Your task to perform on an android device: Open the phone app and click the voicemail tab. Image 0: 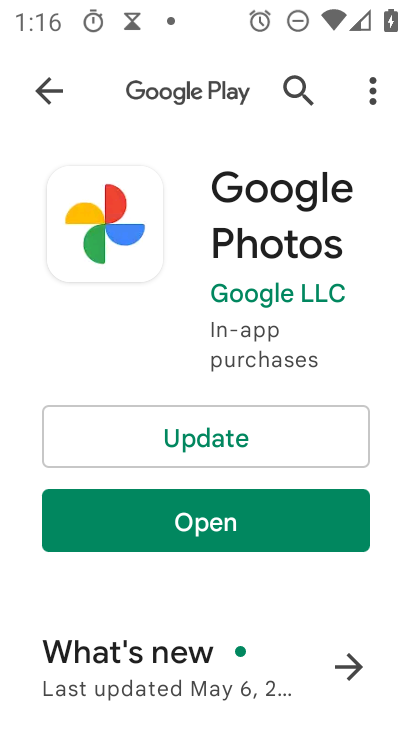
Step 0: press home button
Your task to perform on an android device: Open the phone app and click the voicemail tab. Image 1: 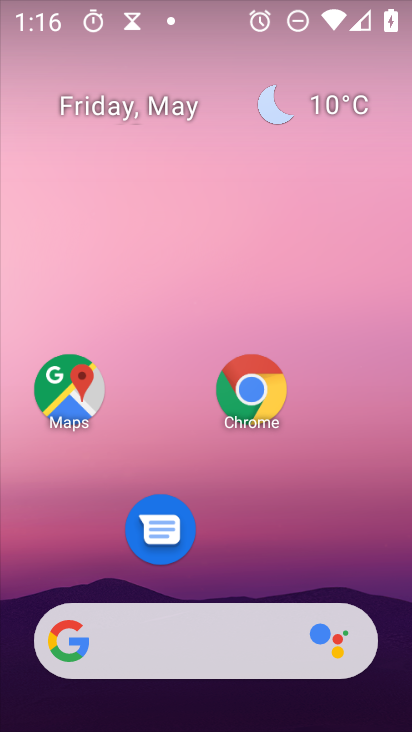
Step 1: drag from (164, 579) to (289, 170)
Your task to perform on an android device: Open the phone app and click the voicemail tab. Image 2: 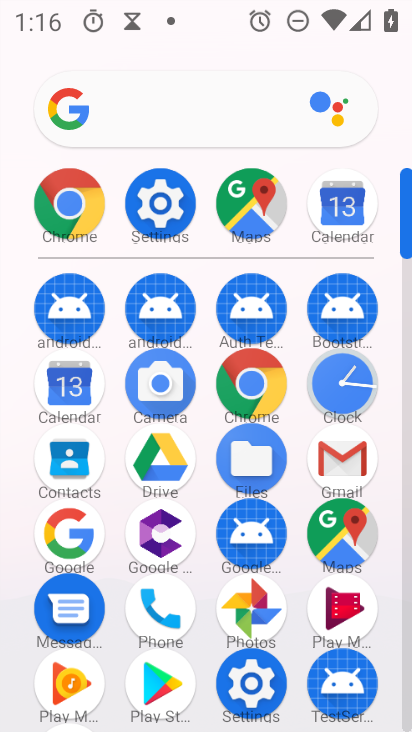
Step 2: click (159, 621)
Your task to perform on an android device: Open the phone app and click the voicemail tab. Image 3: 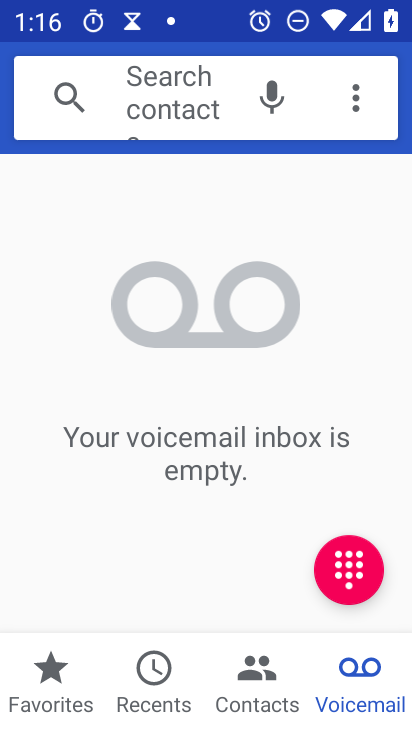
Step 3: task complete